Your task to perform on an android device: Go to eBay Image 0: 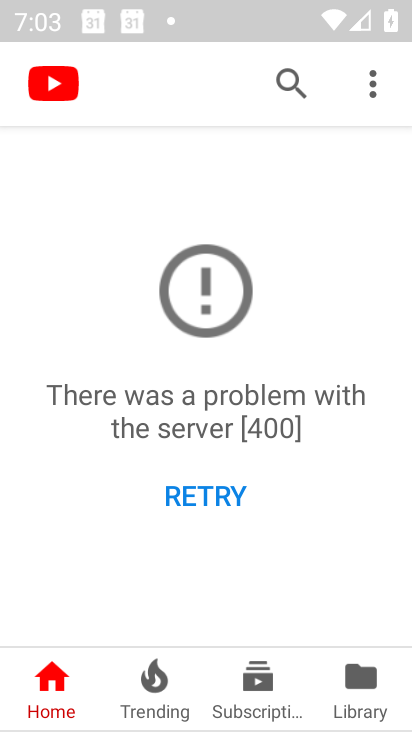
Step 0: press home button
Your task to perform on an android device: Go to eBay Image 1: 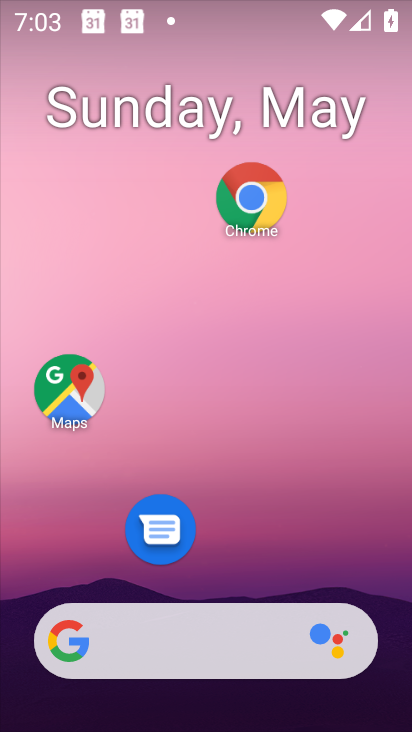
Step 1: click (264, 192)
Your task to perform on an android device: Go to eBay Image 2: 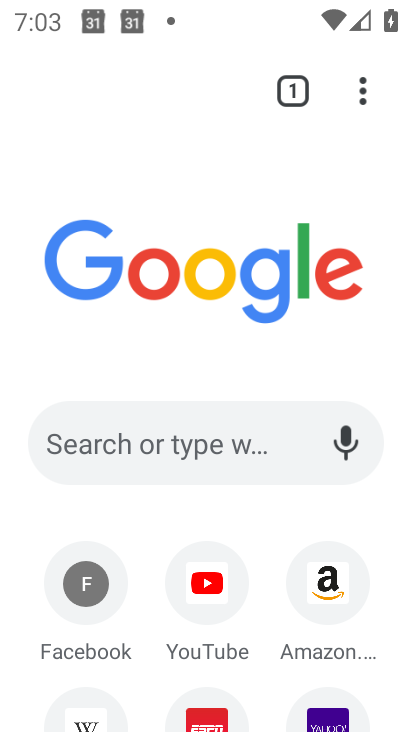
Step 2: click (131, 436)
Your task to perform on an android device: Go to eBay Image 3: 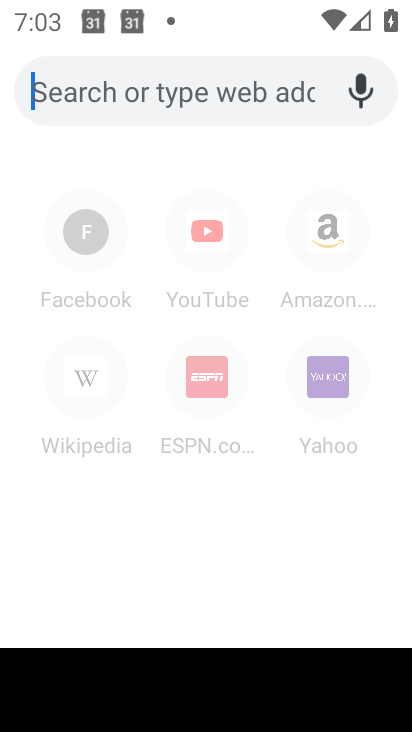
Step 3: type "eBay"
Your task to perform on an android device: Go to eBay Image 4: 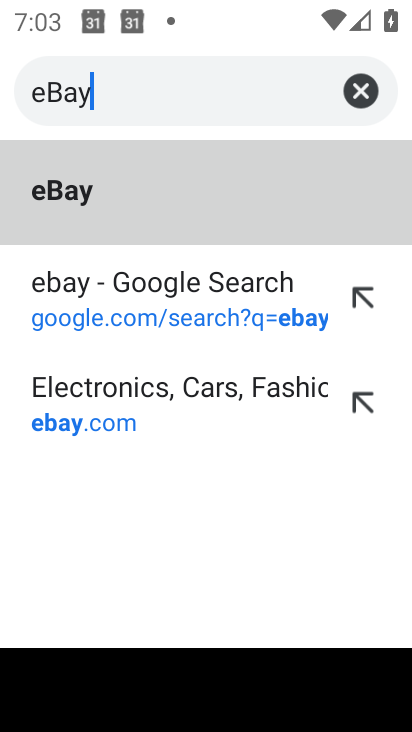
Step 4: click (110, 183)
Your task to perform on an android device: Go to eBay Image 5: 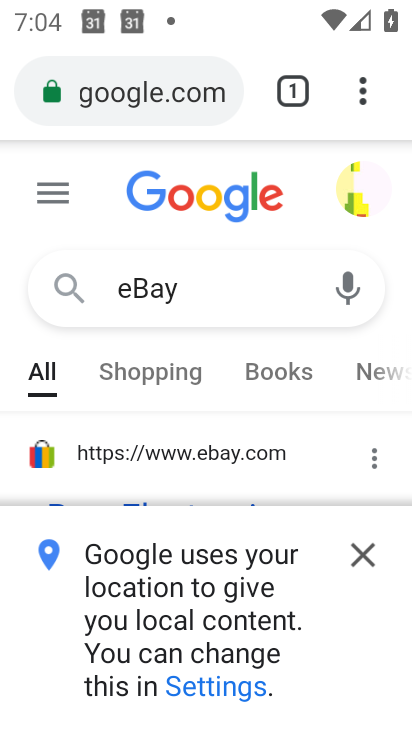
Step 5: task complete